Your task to perform on an android device: open app "Walmart Shopping & Grocery" Image 0: 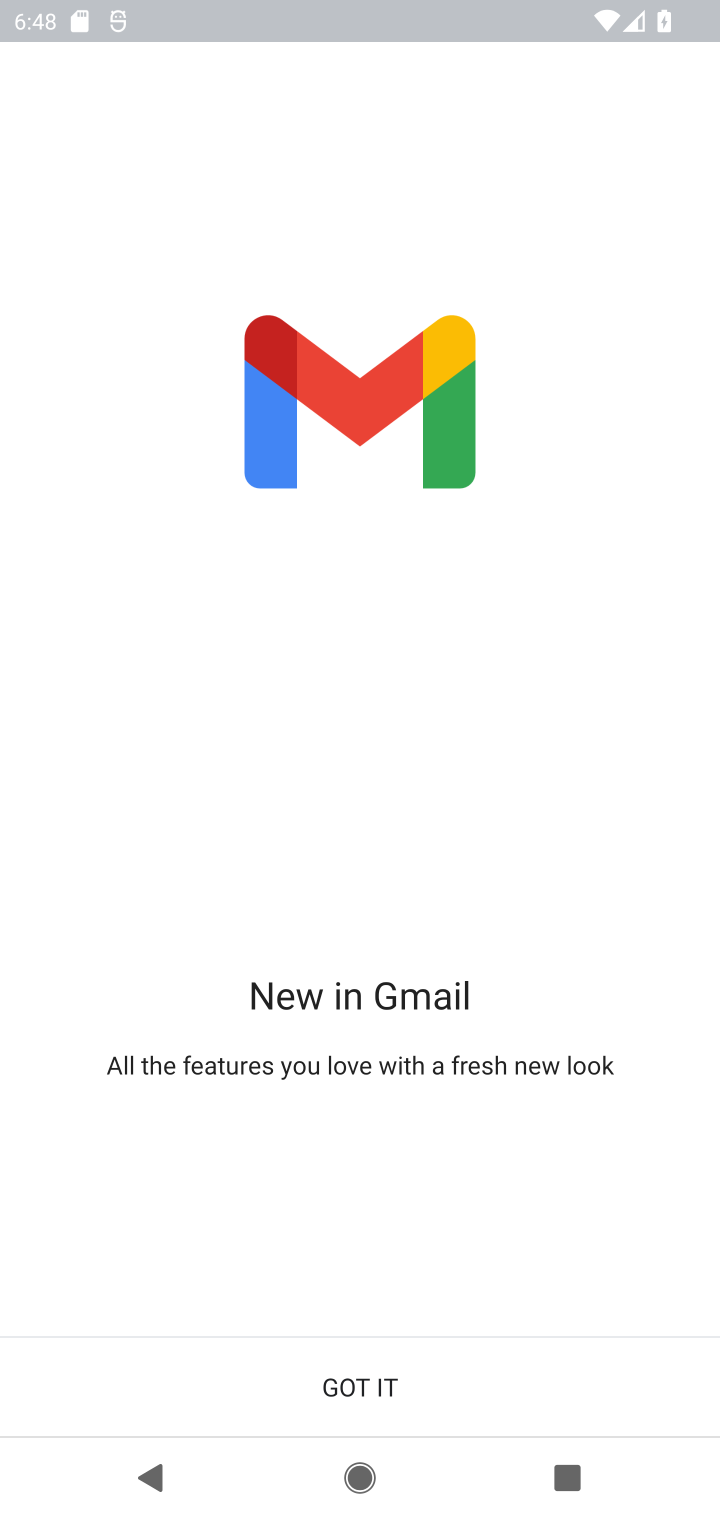
Step 0: press home button
Your task to perform on an android device: open app "Walmart Shopping & Grocery" Image 1: 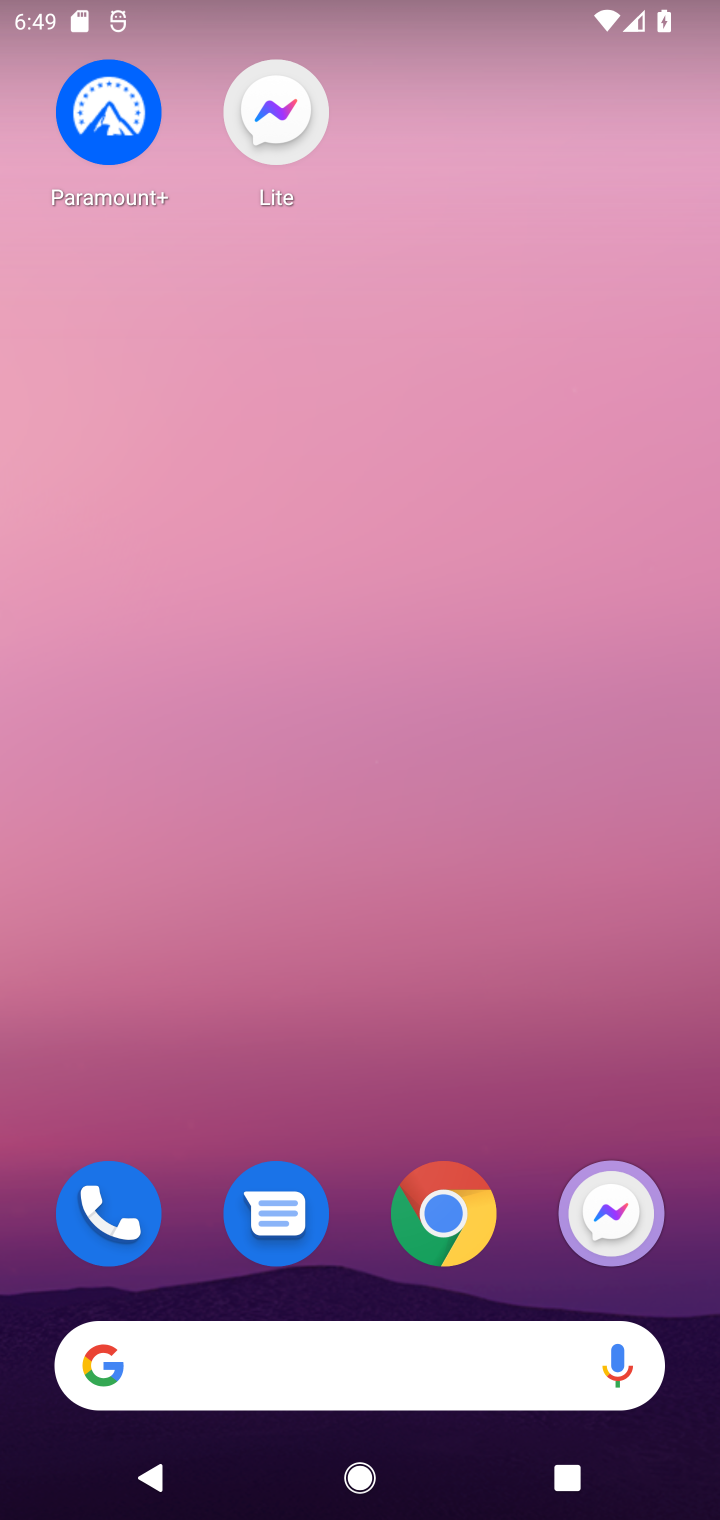
Step 1: drag from (351, 1126) to (42, 296)
Your task to perform on an android device: open app "Walmart Shopping & Grocery" Image 2: 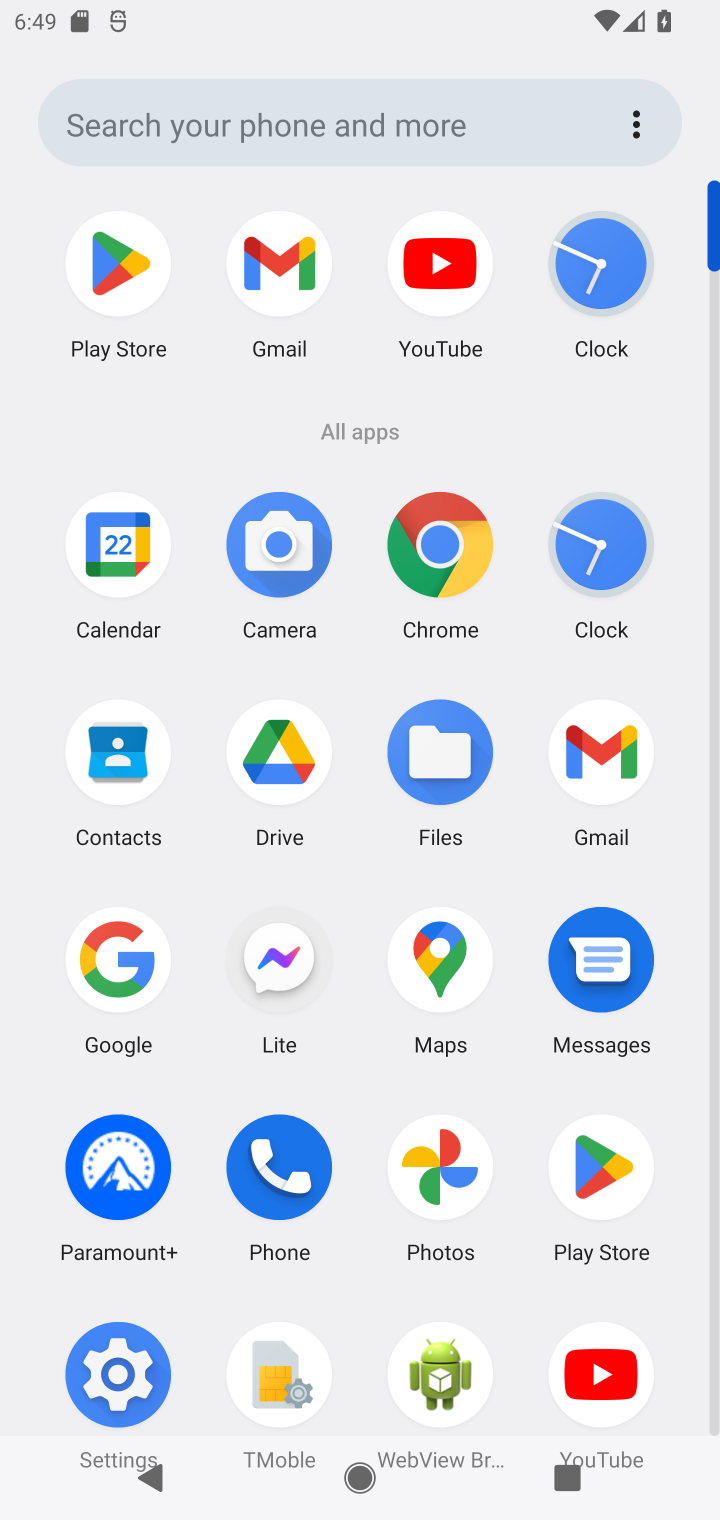
Step 2: click (579, 1174)
Your task to perform on an android device: open app "Walmart Shopping & Grocery" Image 3: 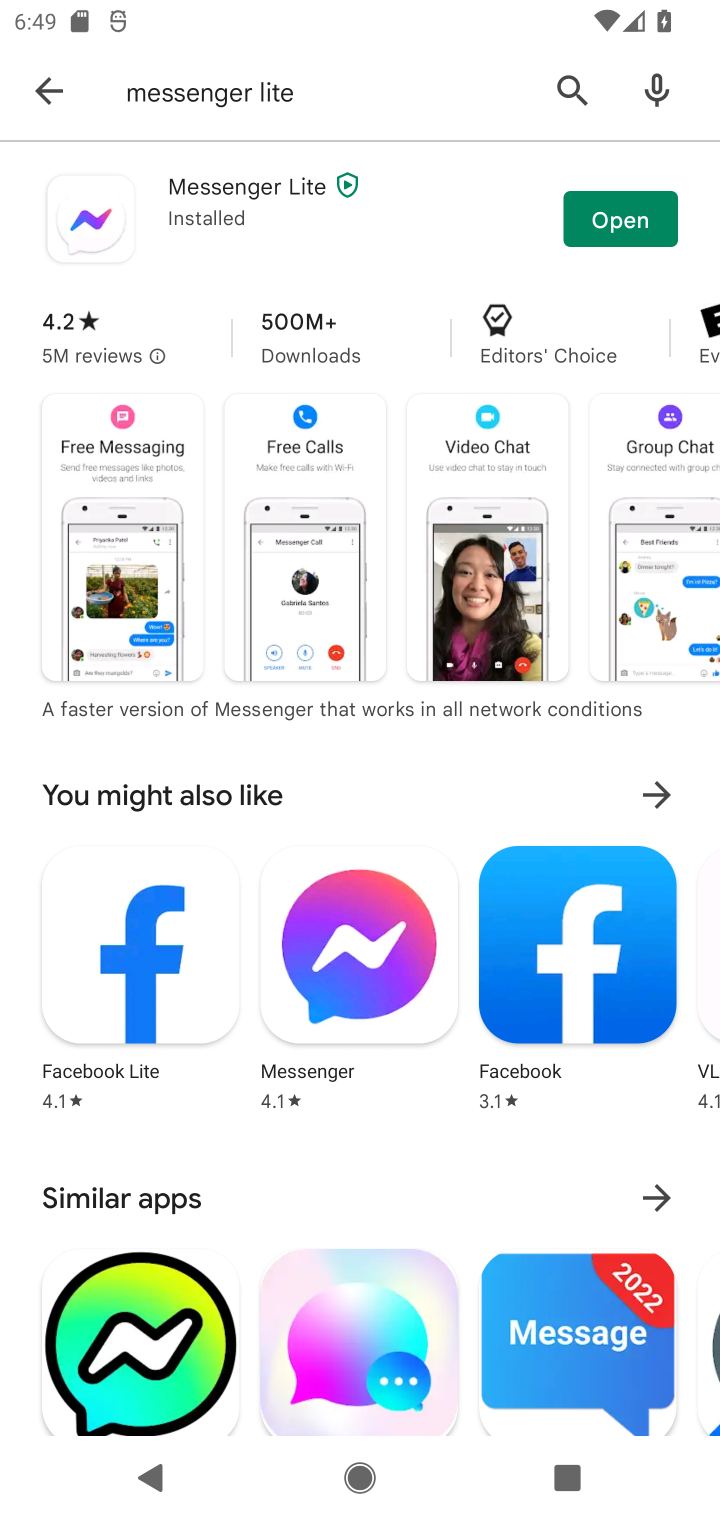
Step 3: click (562, 68)
Your task to perform on an android device: open app "Walmart Shopping & Grocery" Image 4: 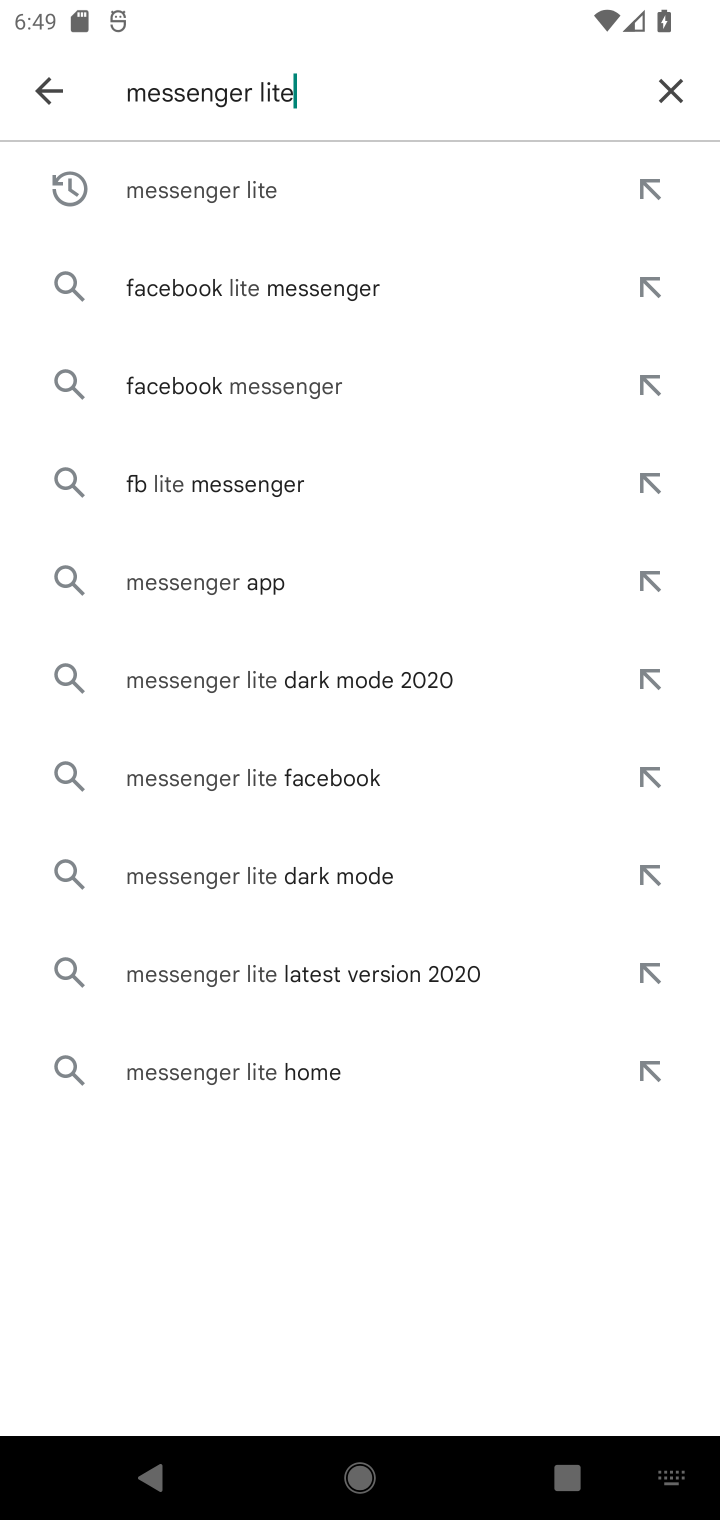
Step 4: click (679, 105)
Your task to perform on an android device: open app "Walmart Shopping & Grocery" Image 5: 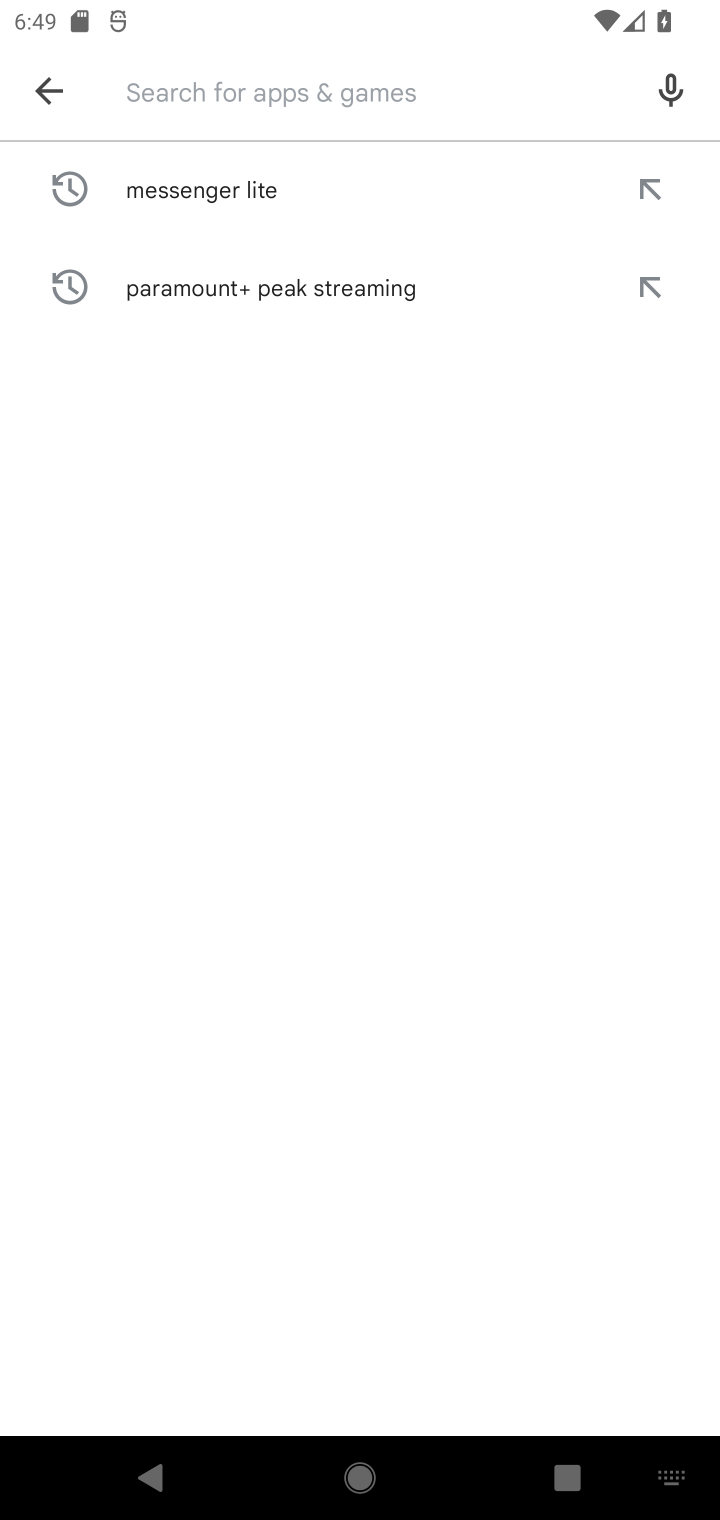
Step 5: type "Walmart Shopping & Grocery"
Your task to perform on an android device: open app "Walmart Shopping & Grocery" Image 6: 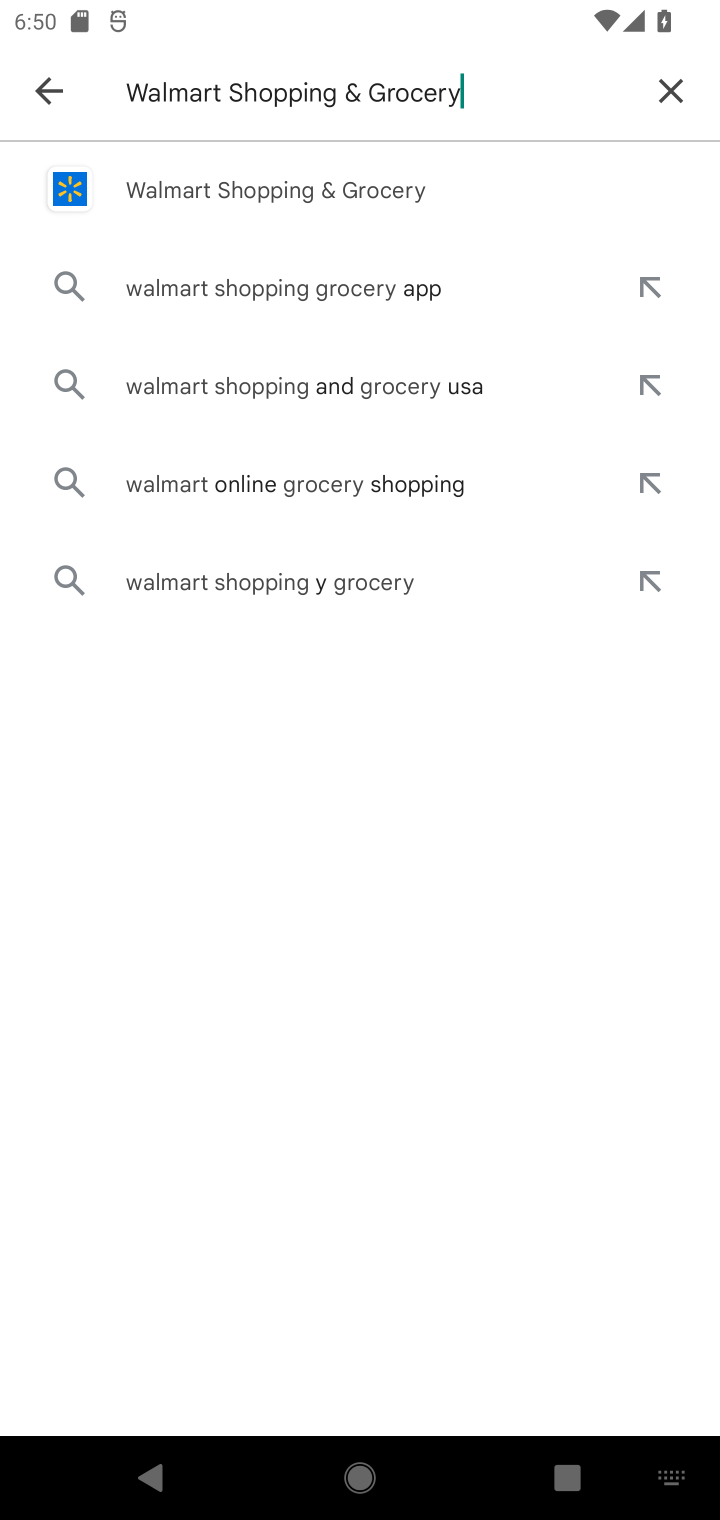
Step 6: click (247, 203)
Your task to perform on an android device: open app "Walmart Shopping & Grocery" Image 7: 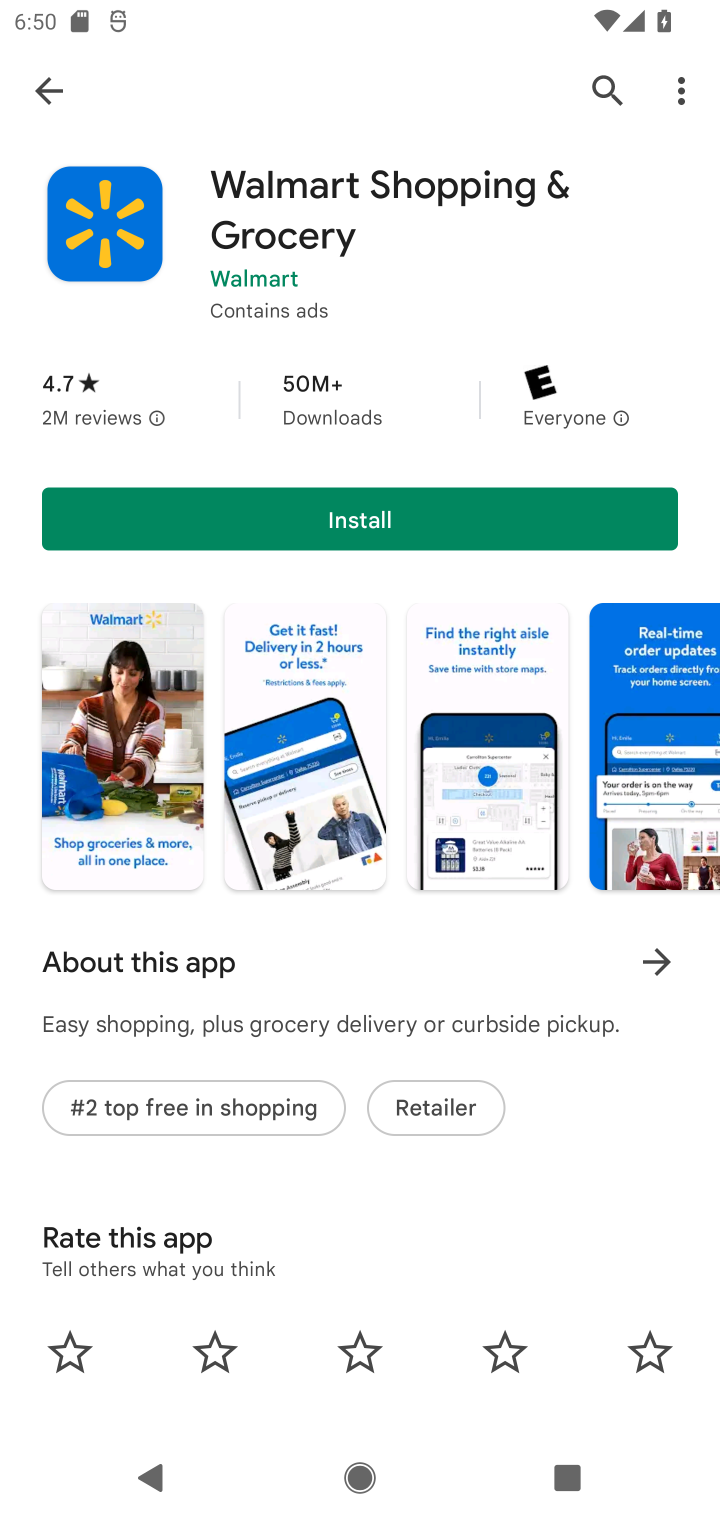
Step 7: task complete